Your task to perform on an android device: Open calendar and show me the second week of next month Image 0: 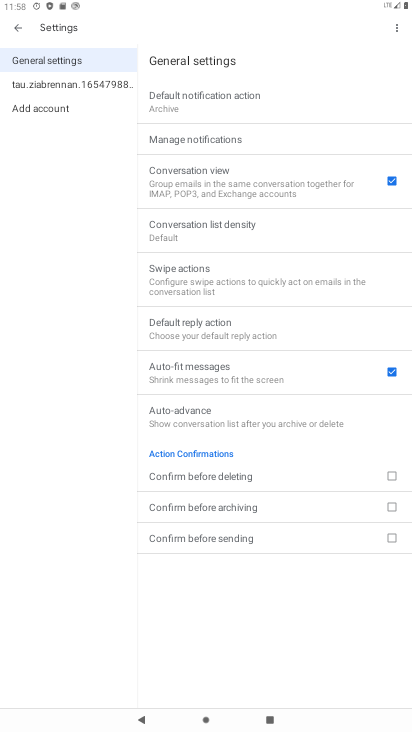
Step 0: press home button
Your task to perform on an android device: Open calendar and show me the second week of next month Image 1: 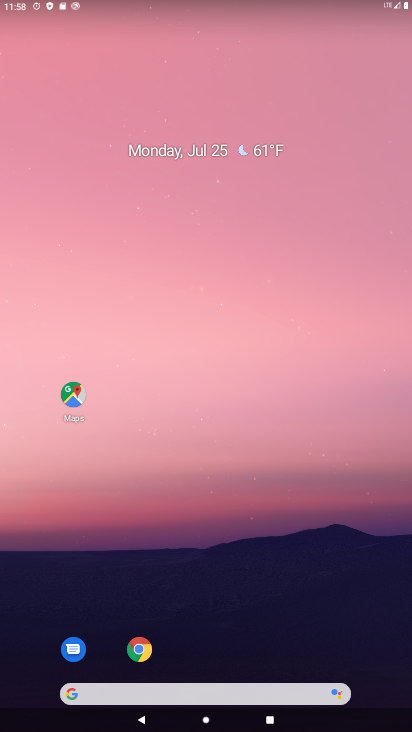
Step 1: drag from (243, 661) to (136, 203)
Your task to perform on an android device: Open calendar and show me the second week of next month Image 2: 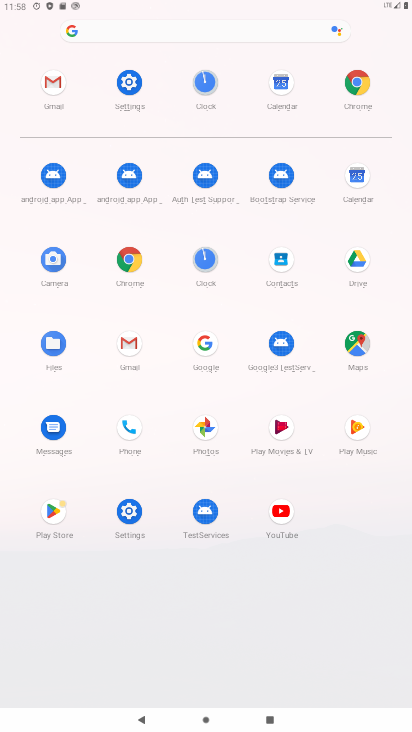
Step 2: click (361, 182)
Your task to perform on an android device: Open calendar and show me the second week of next month Image 3: 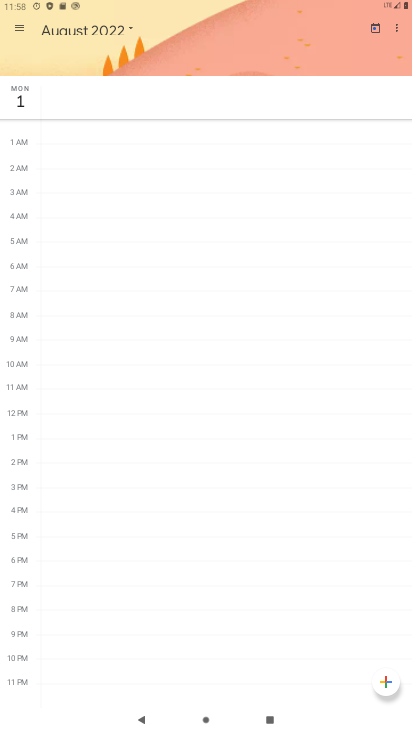
Step 3: click (5, 29)
Your task to perform on an android device: Open calendar and show me the second week of next month Image 4: 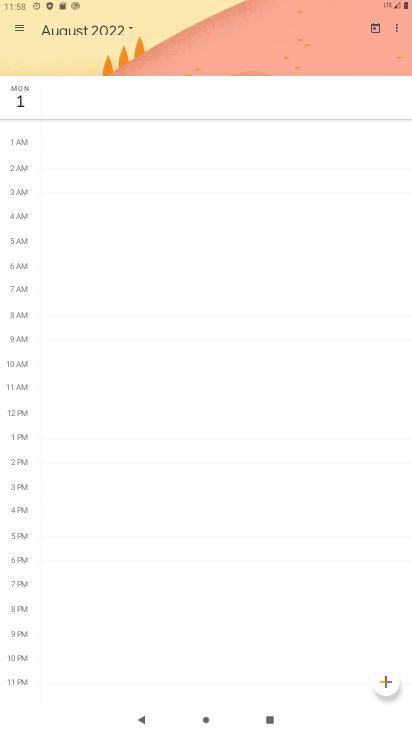
Step 4: click (23, 25)
Your task to perform on an android device: Open calendar and show me the second week of next month Image 5: 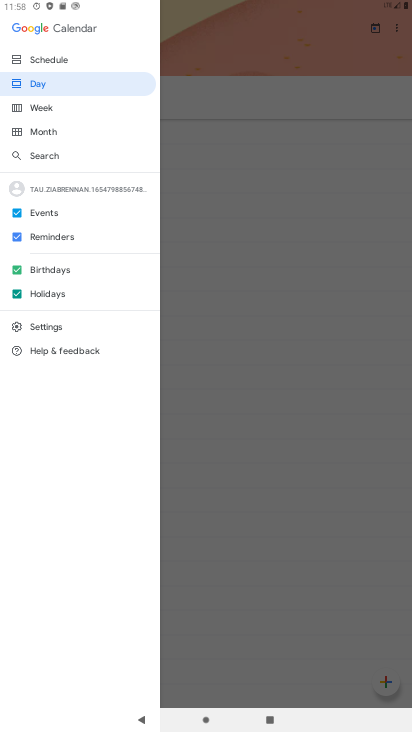
Step 5: click (52, 104)
Your task to perform on an android device: Open calendar and show me the second week of next month Image 6: 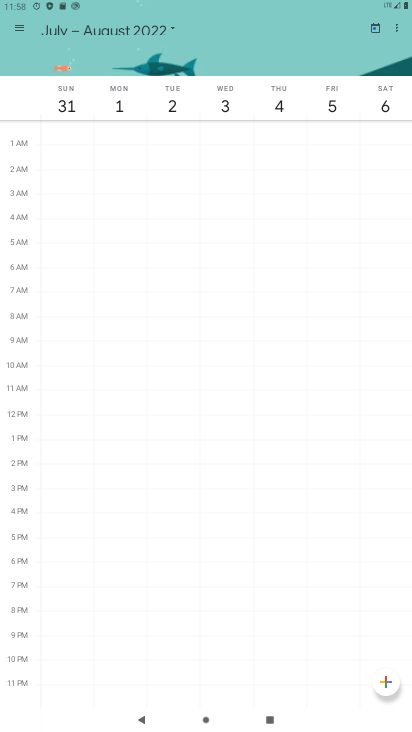
Step 6: task complete